Your task to perform on an android device: delete the emails in spam in the gmail app Image 0: 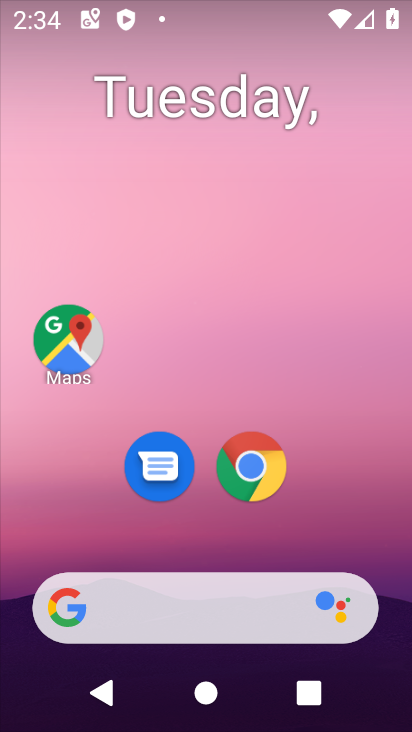
Step 0: task complete